Your task to perform on an android device: set the stopwatch Image 0: 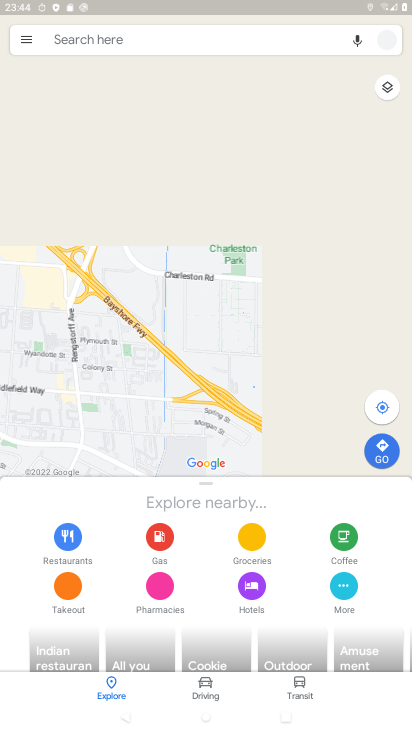
Step 0: press home button
Your task to perform on an android device: set the stopwatch Image 1: 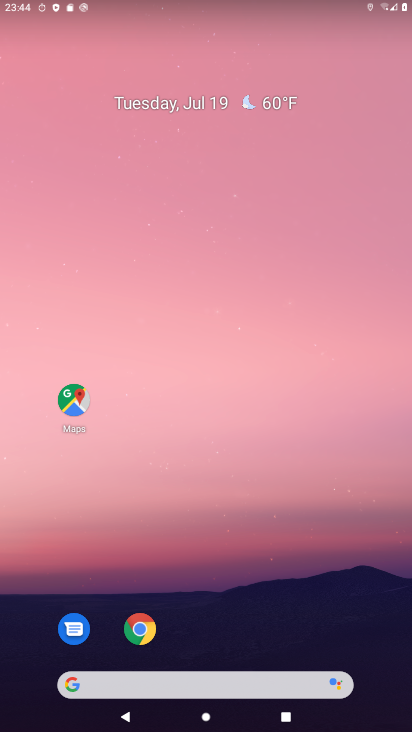
Step 1: drag from (278, 589) to (286, 54)
Your task to perform on an android device: set the stopwatch Image 2: 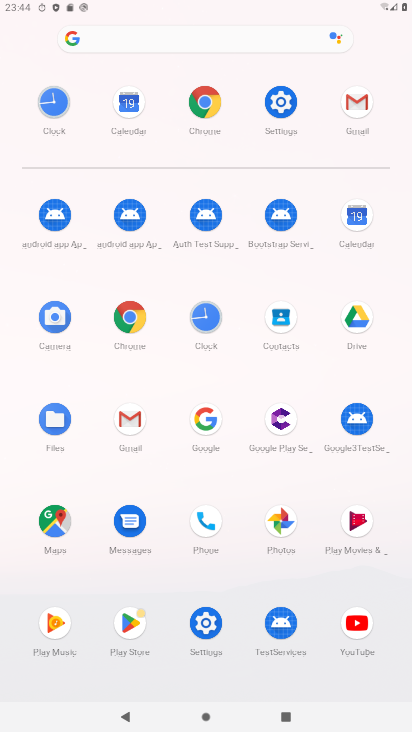
Step 2: click (206, 313)
Your task to perform on an android device: set the stopwatch Image 3: 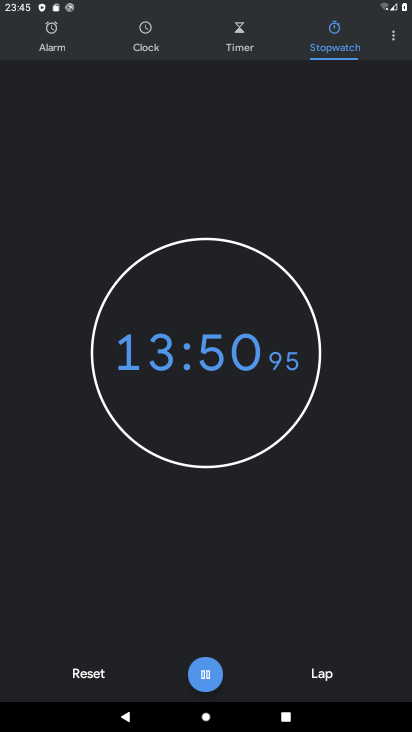
Step 3: task complete